Your task to perform on an android device: Open notification settings Image 0: 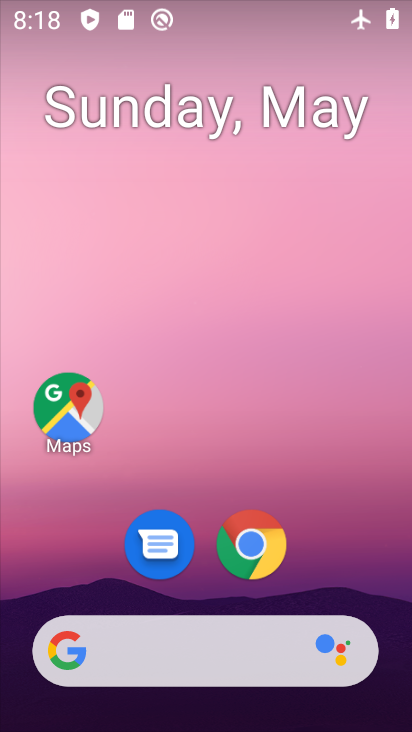
Step 0: drag from (350, 558) to (252, 61)
Your task to perform on an android device: Open notification settings Image 1: 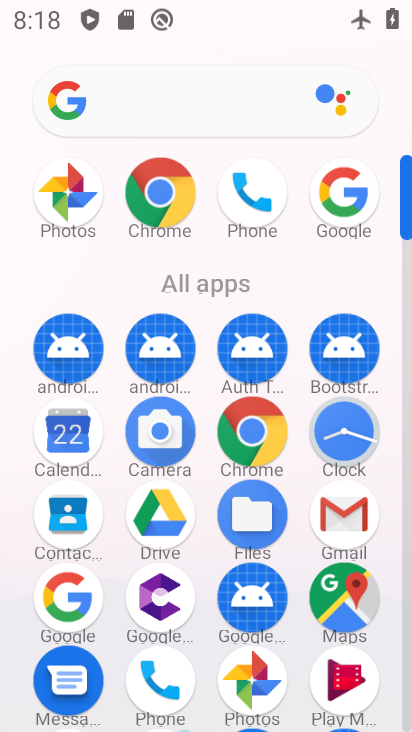
Step 1: drag from (11, 568) to (17, 243)
Your task to perform on an android device: Open notification settings Image 2: 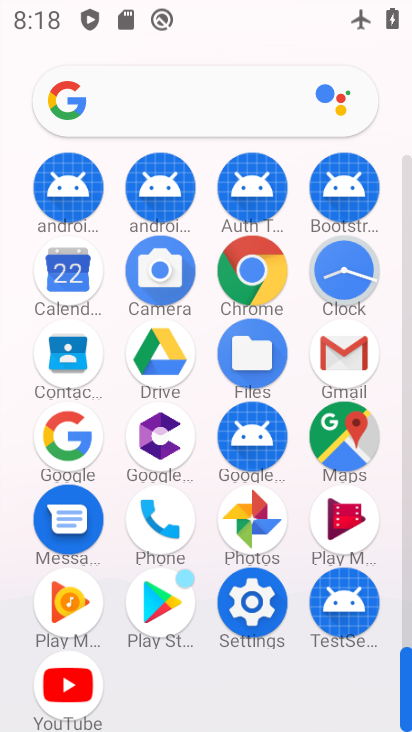
Step 2: click (242, 595)
Your task to perform on an android device: Open notification settings Image 3: 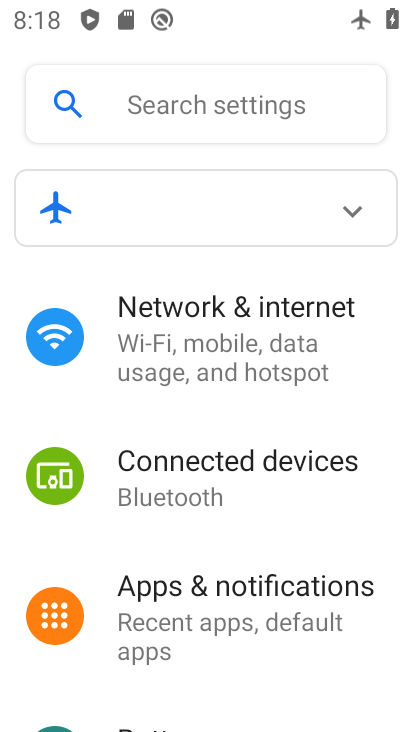
Step 3: drag from (306, 611) to (291, 233)
Your task to perform on an android device: Open notification settings Image 4: 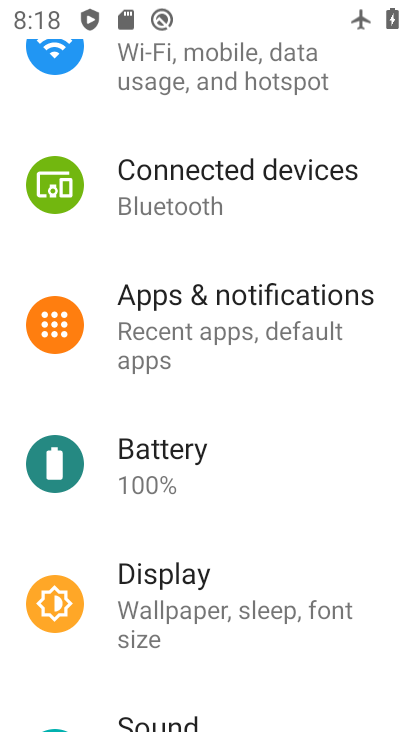
Step 4: drag from (226, 581) to (249, 163)
Your task to perform on an android device: Open notification settings Image 5: 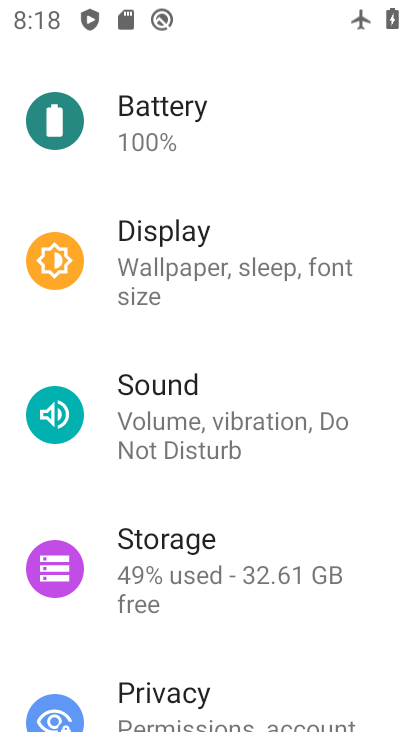
Step 5: drag from (286, 190) to (284, 583)
Your task to perform on an android device: Open notification settings Image 6: 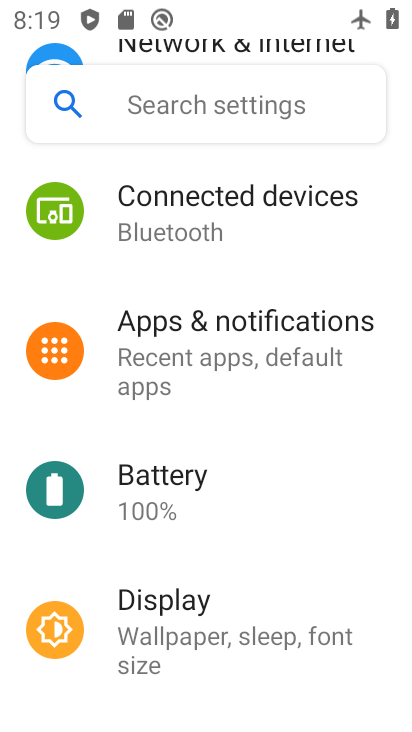
Step 6: click (247, 346)
Your task to perform on an android device: Open notification settings Image 7: 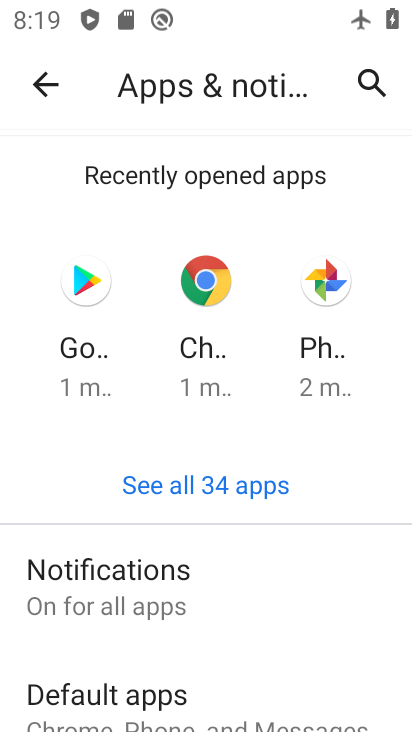
Step 7: click (184, 577)
Your task to perform on an android device: Open notification settings Image 8: 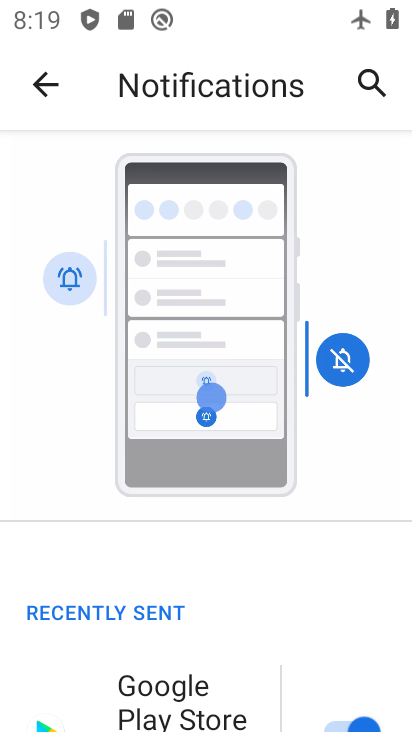
Step 8: drag from (170, 562) to (173, 120)
Your task to perform on an android device: Open notification settings Image 9: 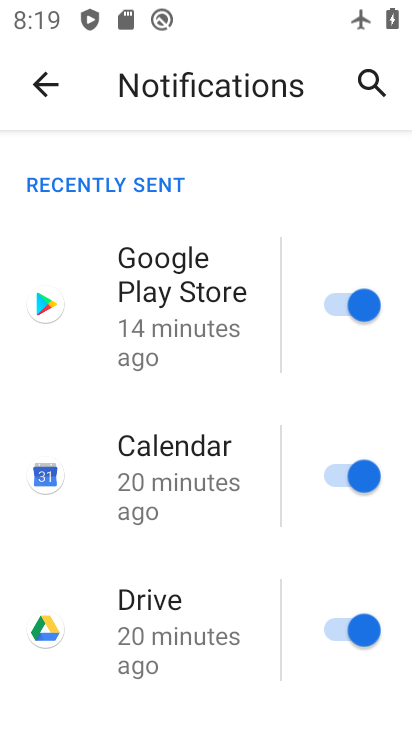
Step 9: drag from (162, 638) to (202, 138)
Your task to perform on an android device: Open notification settings Image 10: 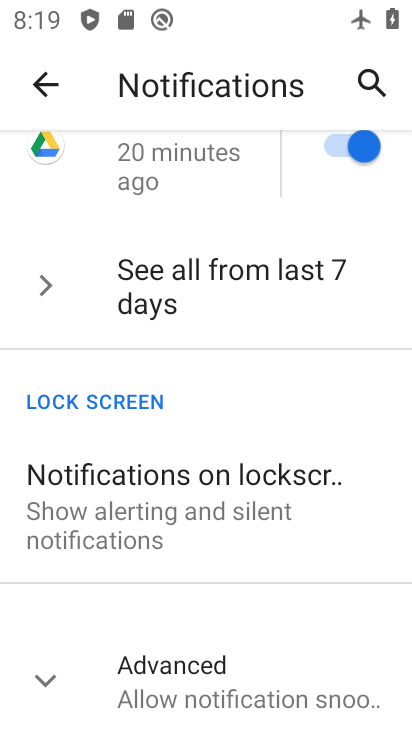
Step 10: drag from (152, 571) to (168, 275)
Your task to perform on an android device: Open notification settings Image 11: 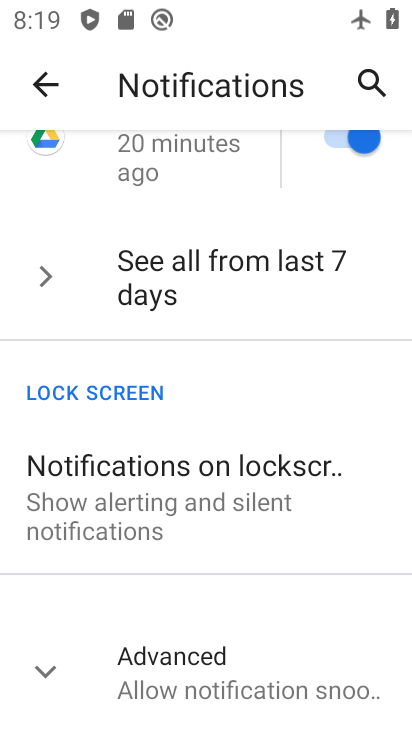
Step 11: click (43, 669)
Your task to perform on an android device: Open notification settings Image 12: 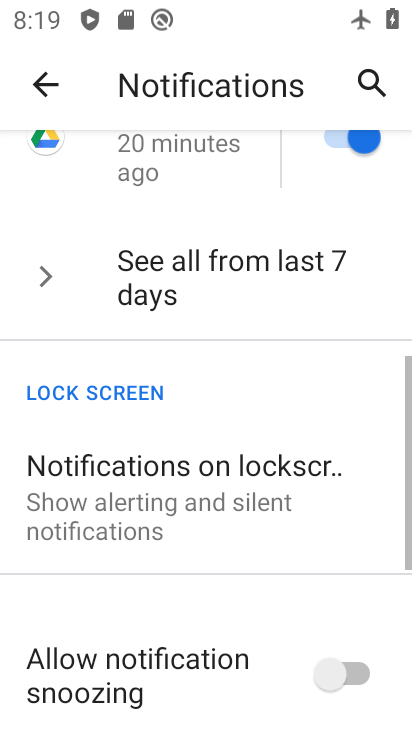
Step 12: task complete